Your task to perform on an android device: Open Chrome and go to the settings page Image 0: 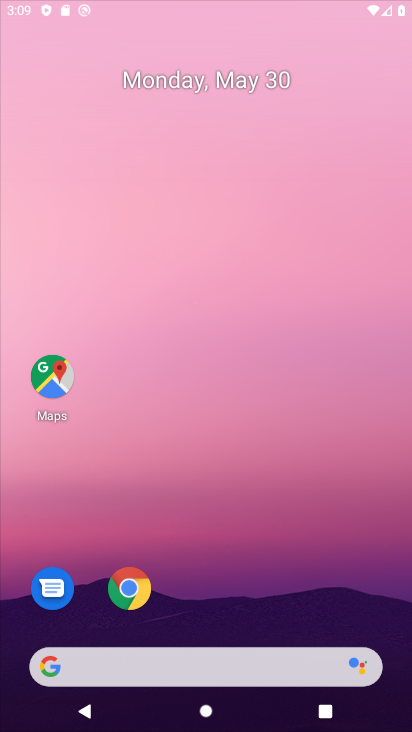
Step 0: click (318, 83)
Your task to perform on an android device: Open Chrome and go to the settings page Image 1: 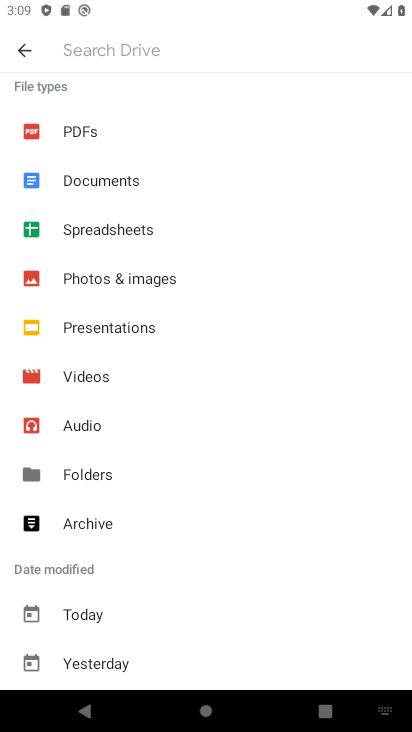
Step 1: press home button
Your task to perform on an android device: Open Chrome and go to the settings page Image 2: 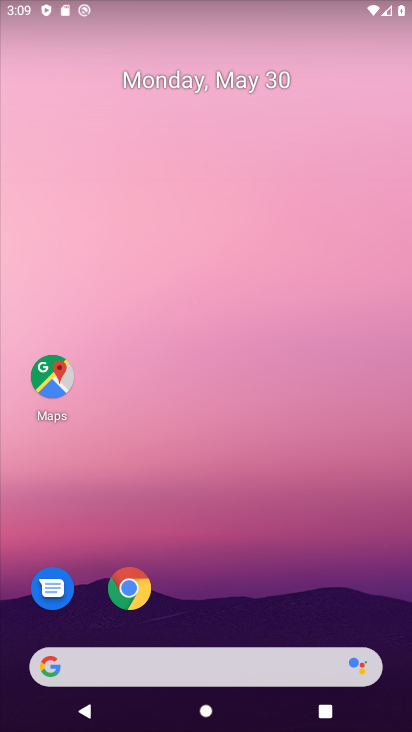
Step 2: click (127, 591)
Your task to perform on an android device: Open Chrome and go to the settings page Image 3: 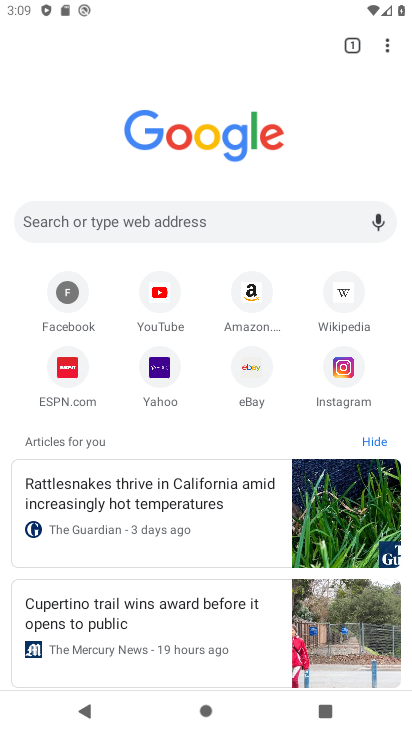
Step 3: click (384, 47)
Your task to perform on an android device: Open Chrome and go to the settings page Image 4: 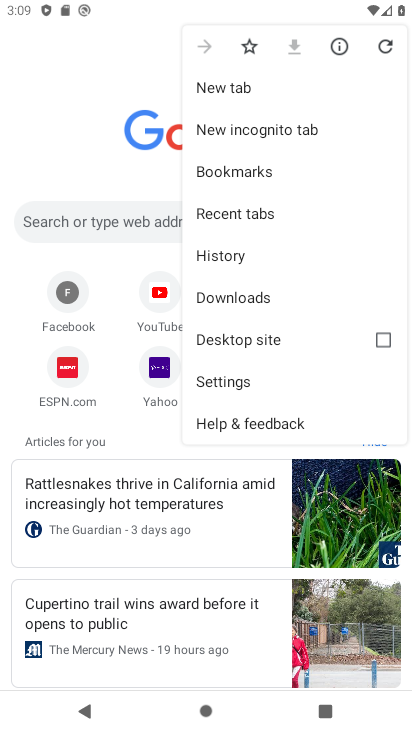
Step 4: click (223, 372)
Your task to perform on an android device: Open Chrome and go to the settings page Image 5: 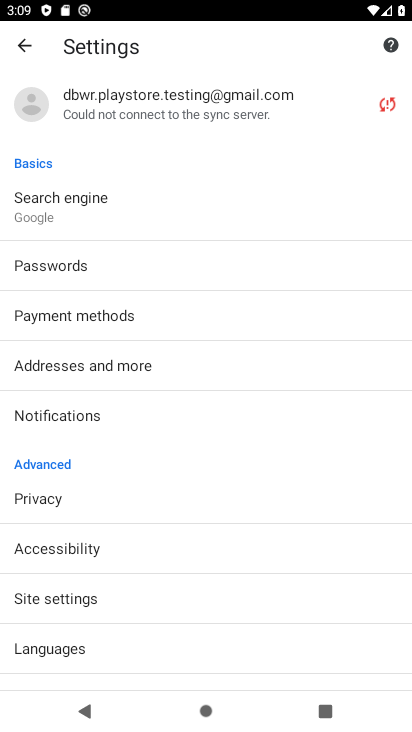
Step 5: task complete